Your task to perform on an android device: change notification settings in the gmail app Image 0: 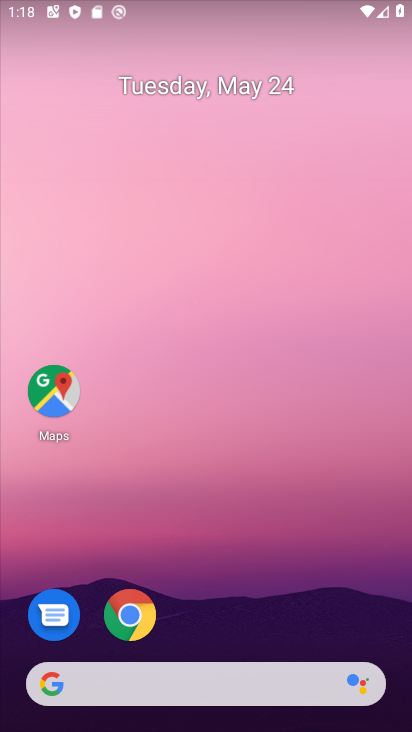
Step 0: drag from (250, 629) to (252, 171)
Your task to perform on an android device: change notification settings in the gmail app Image 1: 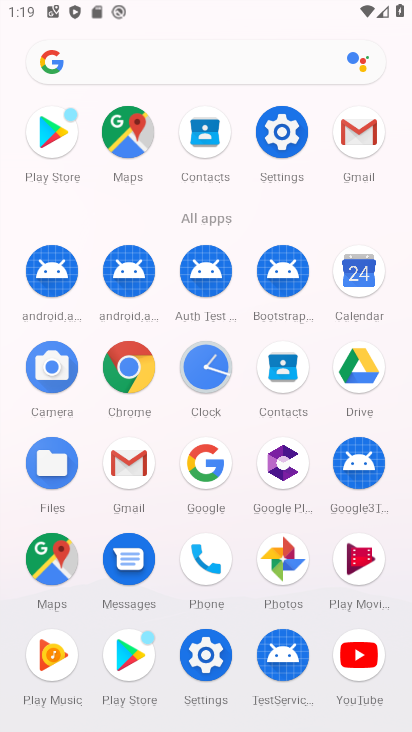
Step 1: click (121, 468)
Your task to perform on an android device: change notification settings in the gmail app Image 2: 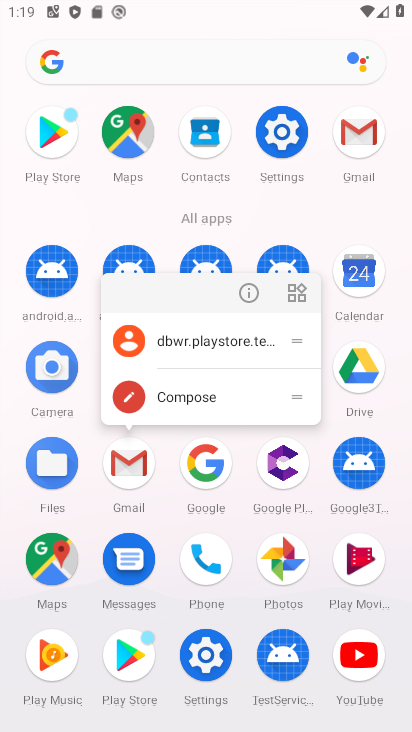
Step 2: click (247, 286)
Your task to perform on an android device: change notification settings in the gmail app Image 3: 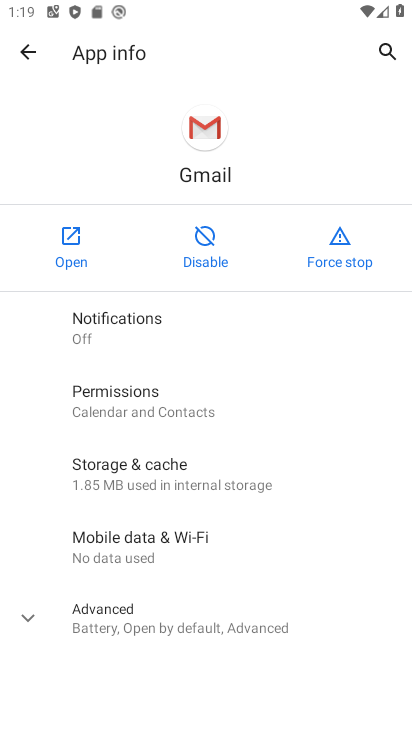
Step 3: click (104, 320)
Your task to perform on an android device: change notification settings in the gmail app Image 4: 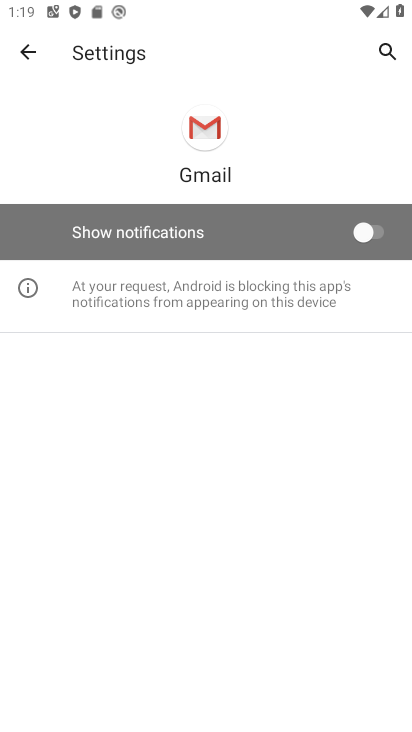
Step 4: click (361, 226)
Your task to perform on an android device: change notification settings in the gmail app Image 5: 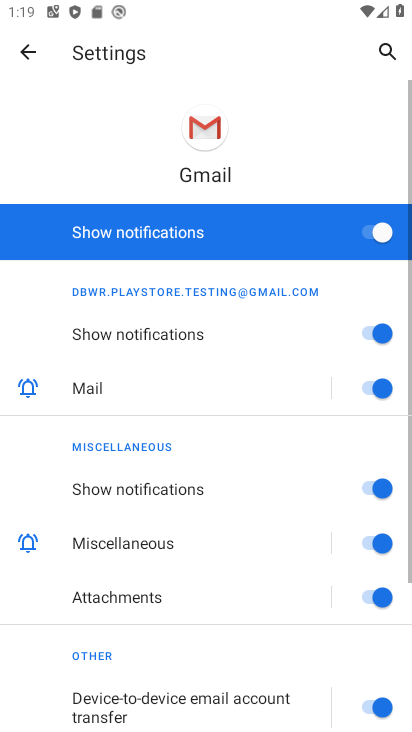
Step 5: click (384, 334)
Your task to perform on an android device: change notification settings in the gmail app Image 6: 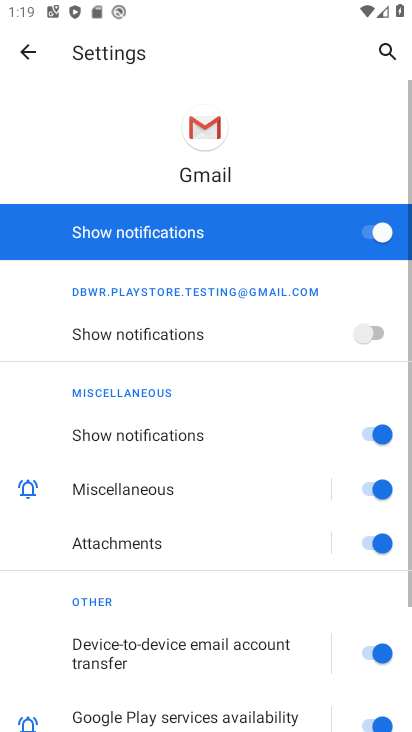
Step 6: task complete